Your task to perform on an android device: Go to wifi settings Image 0: 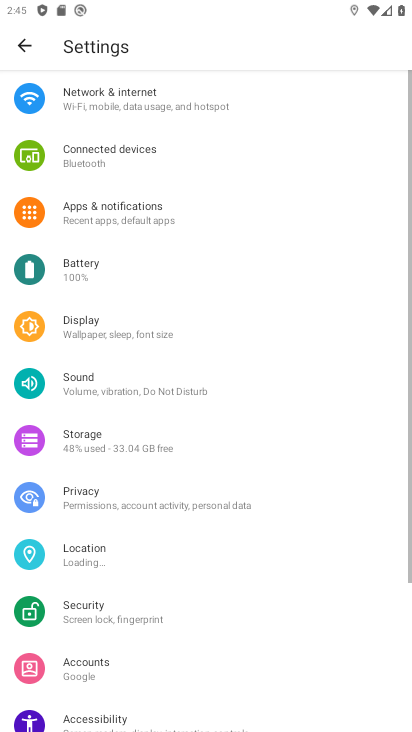
Step 0: press home button
Your task to perform on an android device: Go to wifi settings Image 1: 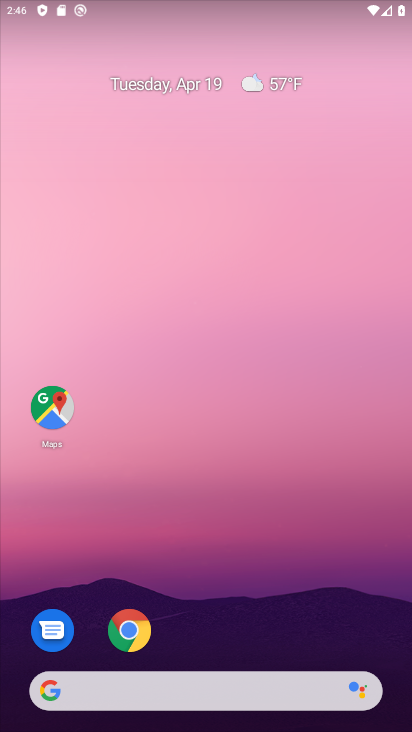
Step 1: drag from (213, 605) to (213, 272)
Your task to perform on an android device: Go to wifi settings Image 2: 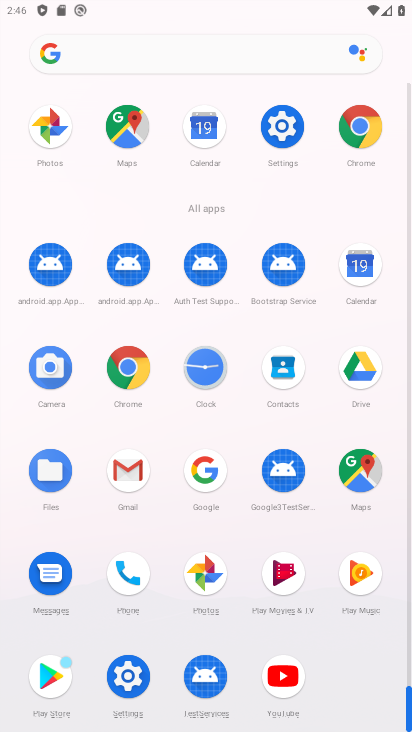
Step 2: click (293, 117)
Your task to perform on an android device: Go to wifi settings Image 3: 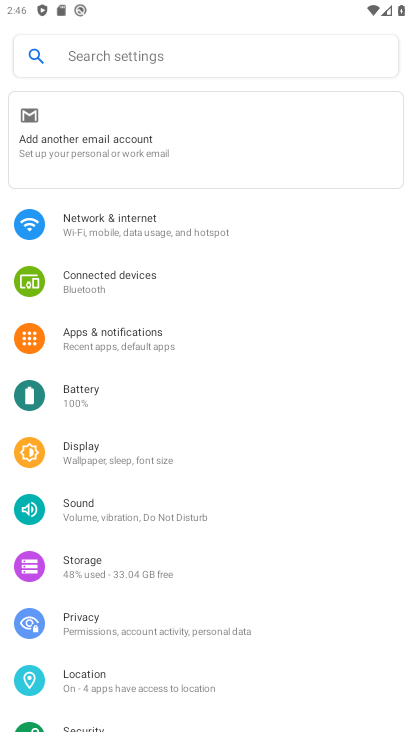
Step 3: click (157, 207)
Your task to perform on an android device: Go to wifi settings Image 4: 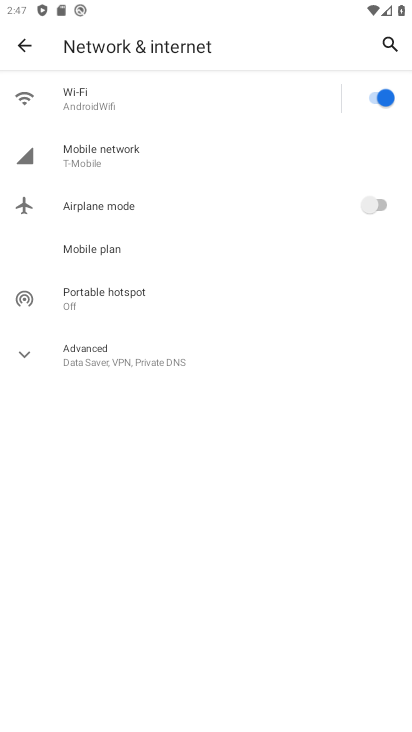
Step 4: click (102, 116)
Your task to perform on an android device: Go to wifi settings Image 5: 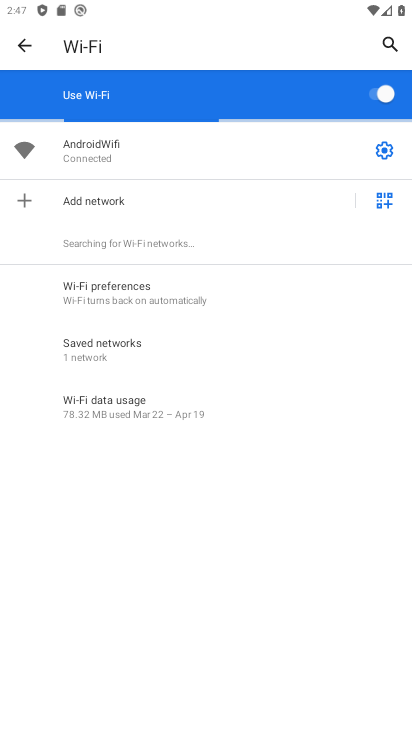
Step 5: task complete